Your task to perform on an android device: Open Android settings Image 0: 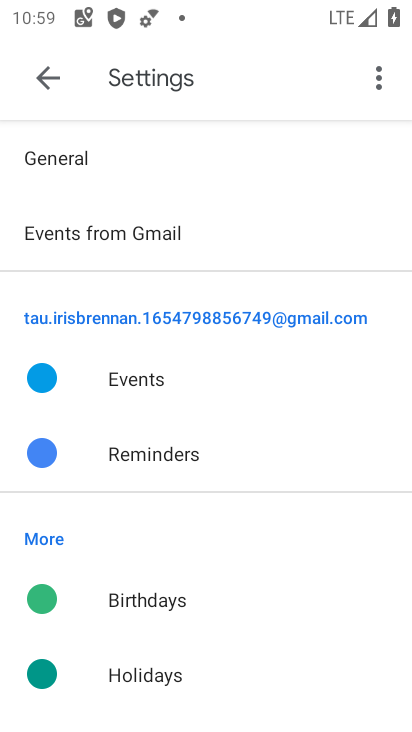
Step 0: press back button
Your task to perform on an android device: Open Android settings Image 1: 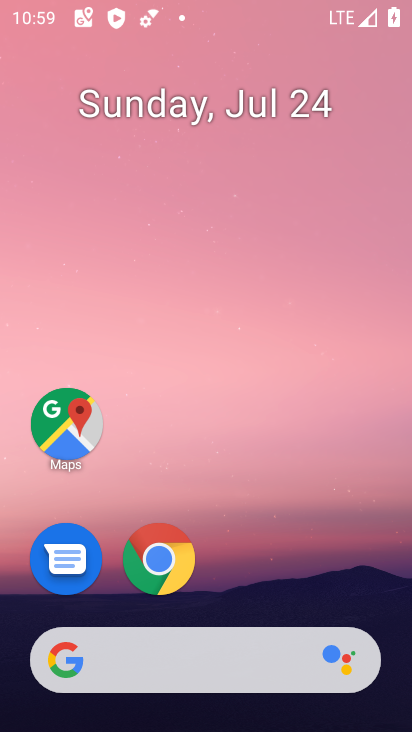
Step 1: press back button
Your task to perform on an android device: Open Android settings Image 2: 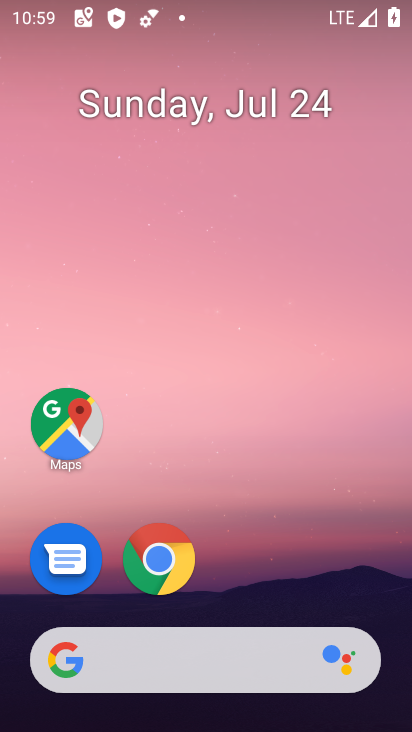
Step 2: drag from (297, 582) to (320, 23)
Your task to perform on an android device: Open Android settings Image 3: 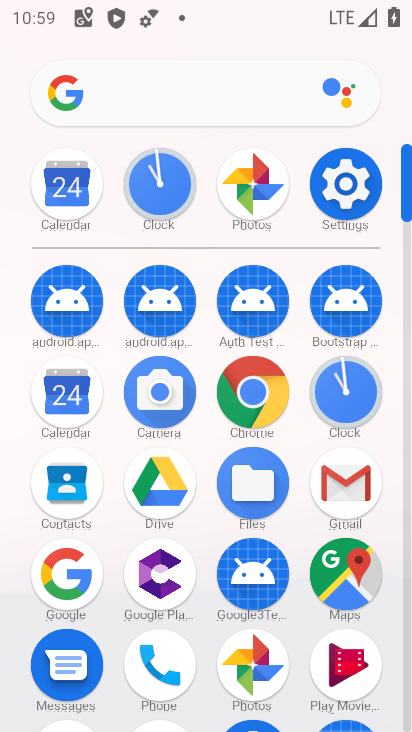
Step 3: click (338, 174)
Your task to perform on an android device: Open Android settings Image 4: 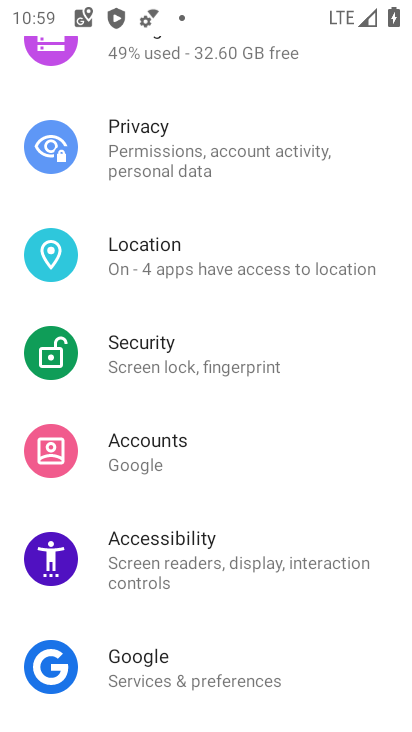
Step 4: drag from (236, 191) to (219, 728)
Your task to perform on an android device: Open Android settings Image 5: 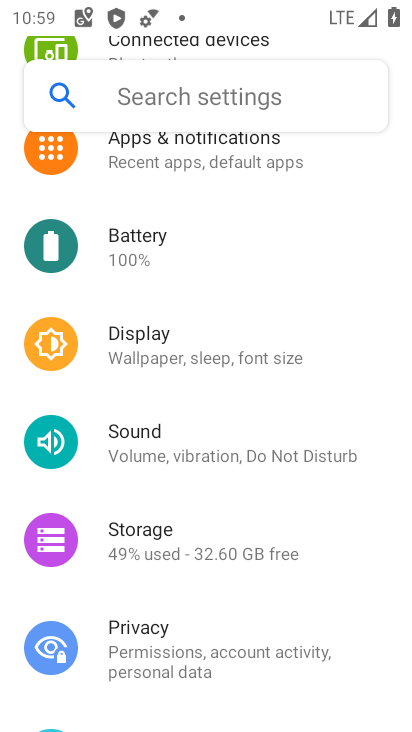
Step 5: drag from (186, 236) to (353, 71)
Your task to perform on an android device: Open Android settings Image 6: 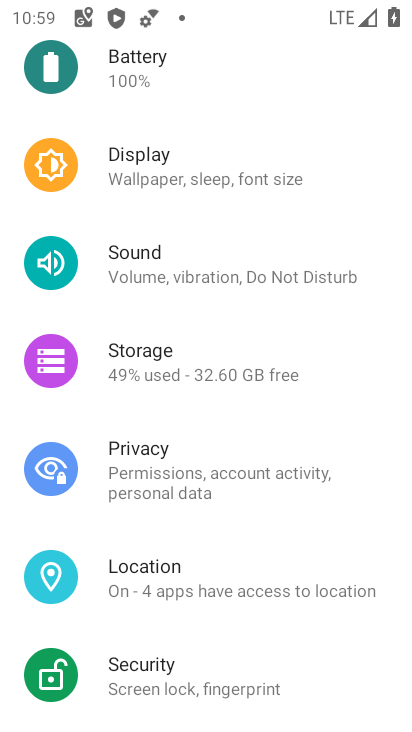
Step 6: drag from (229, 679) to (275, 12)
Your task to perform on an android device: Open Android settings Image 7: 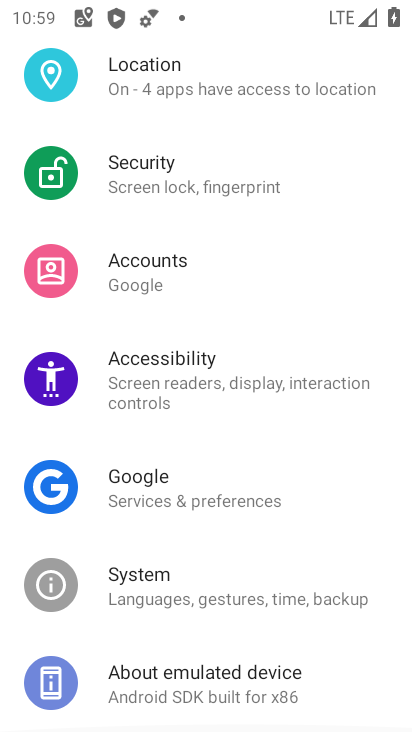
Step 7: drag from (221, 684) to (312, 83)
Your task to perform on an android device: Open Android settings Image 8: 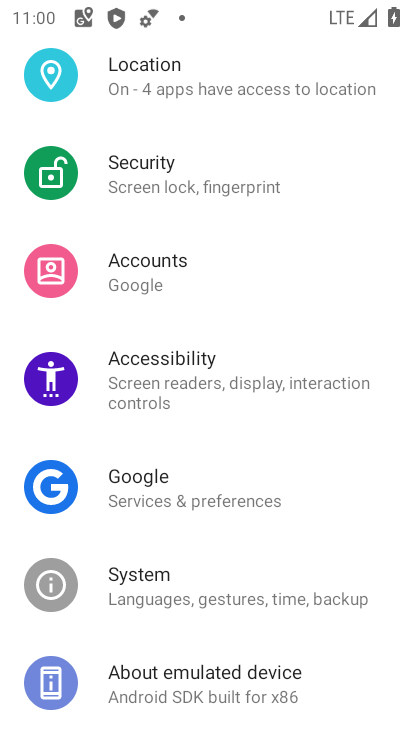
Step 8: click (241, 692)
Your task to perform on an android device: Open Android settings Image 9: 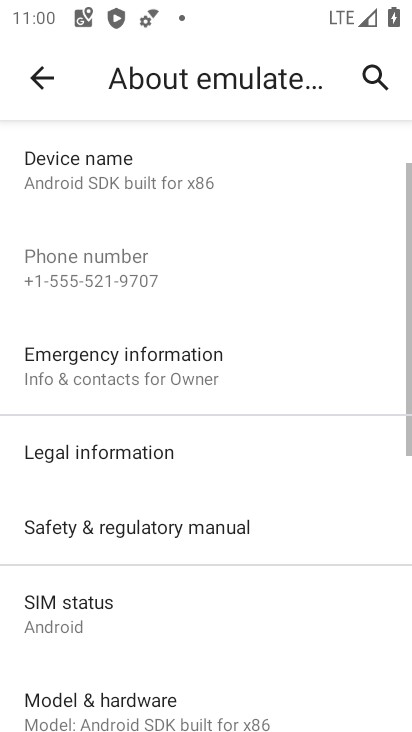
Step 9: drag from (237, 690) to (305, 72)
Your task to perform on an android device: Open Android settings Image 10: 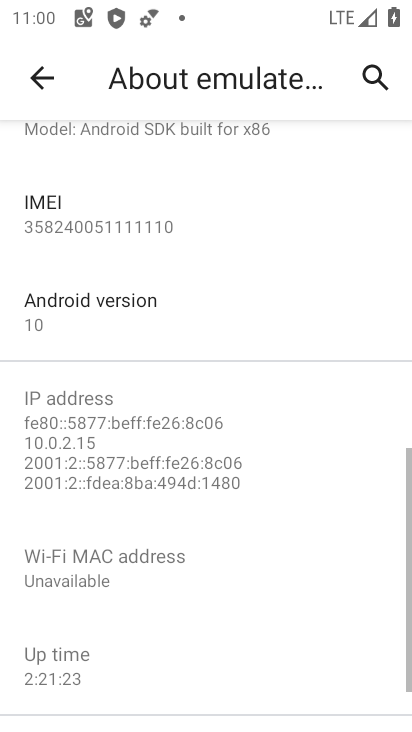
Step 10: click (83, 317)
Your task to perform on an android device: Open Android settings Image 11: 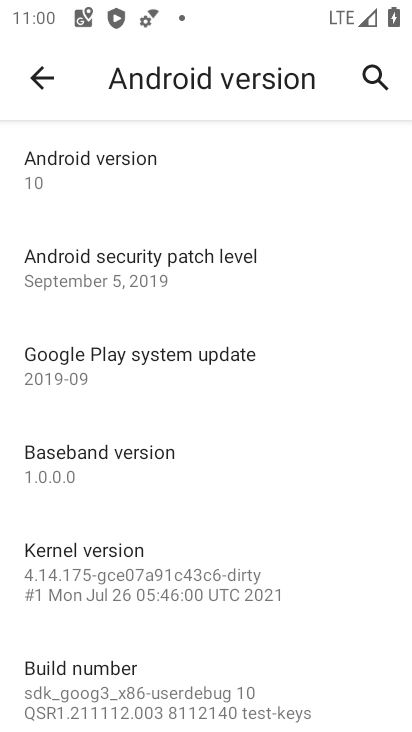
Step 11: task complete